Your task to perform on an android device: star an email in the gmail app Image 0: 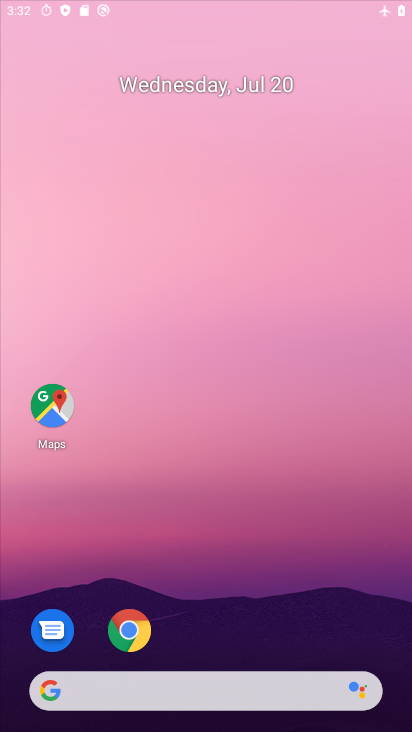
Step 0: press home button
Your task to perform on an android device: star an email in the gmail app Image 1: 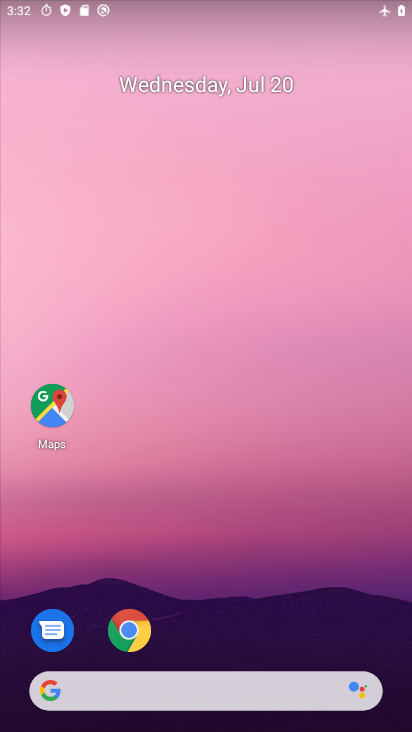
Step 1: drag from (230, 628) to (294, 32)
Your task to perform on an android device: star an email in the gmail app Image 2: 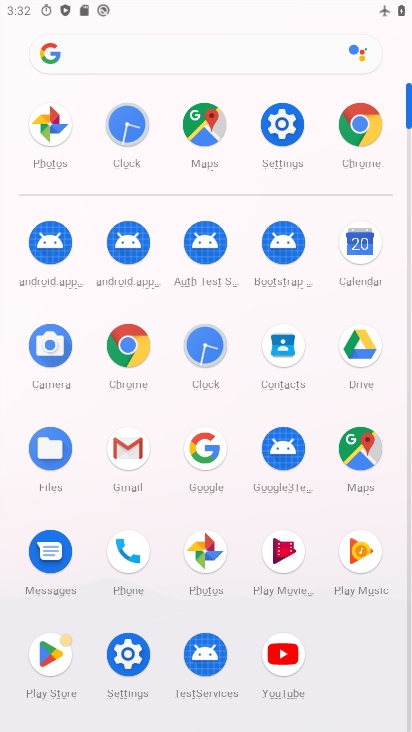
Step 2: click (115, 460)
Your task to perform on an android device: star an email in the gmail app Image 3: 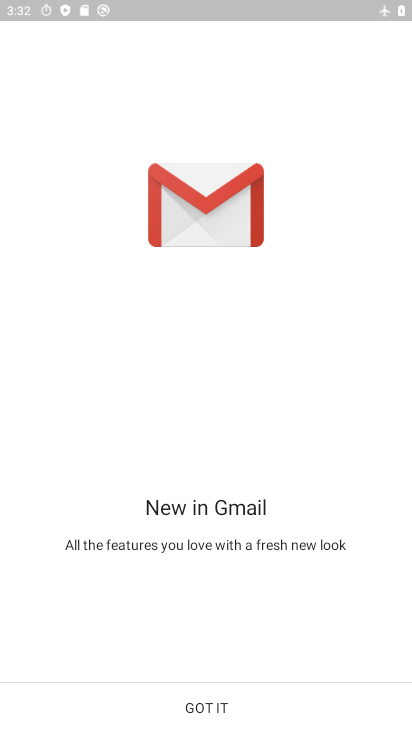
Step 3: click (199, 716)
Your task to perform on an android device: star an email in the gmail app Image 4: 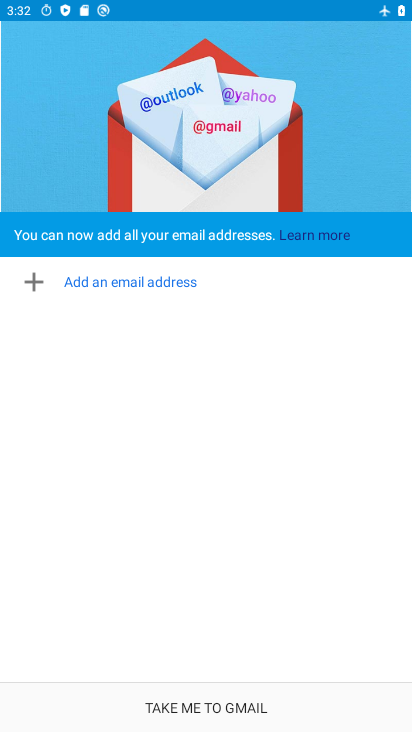
Step 4: click (199, 716)
Your task to perform on an android device: star an email in the gmail app Image 5: 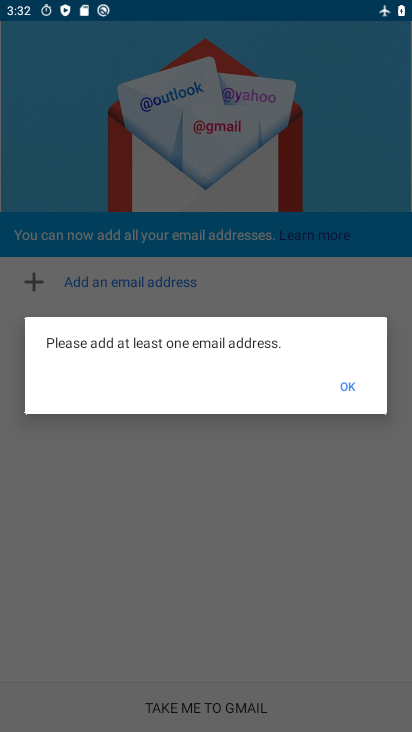
Step 5: click (347, 381)
Your task to perform on an android device: star an email in the gmail app Image 6: 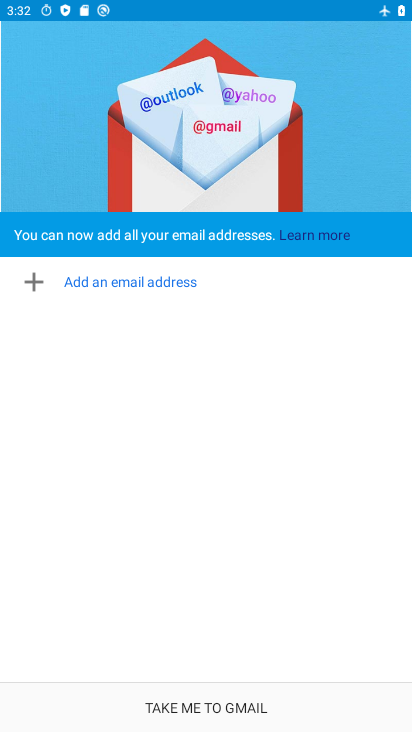
Step 6: task complete